Your task to perform on an android device: find photos in the google photos app Image 0: 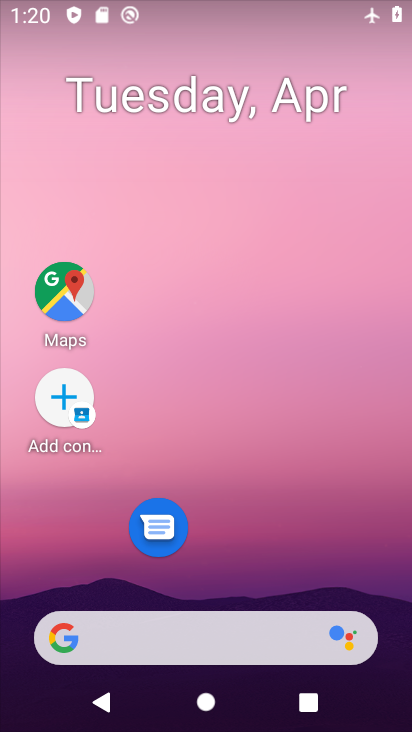
Step 0: drag from (242, 582) to (236, 66)
Your task to perform on an android device: find photos in the google photos app Image 1: 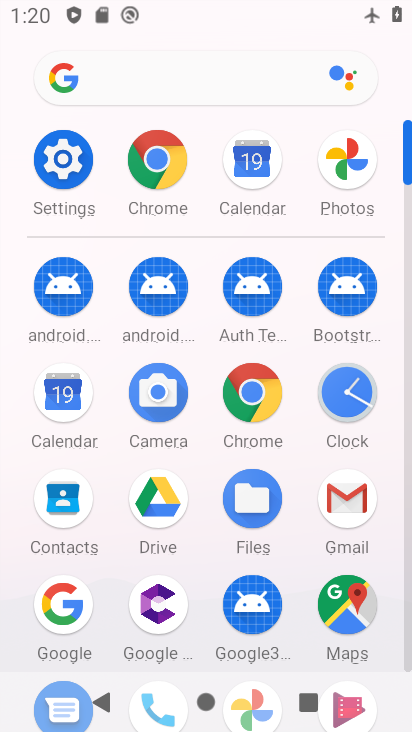
Step 1: click (347, 159)
Your task to perform on an android device: find photos in the google photos app Image 2: 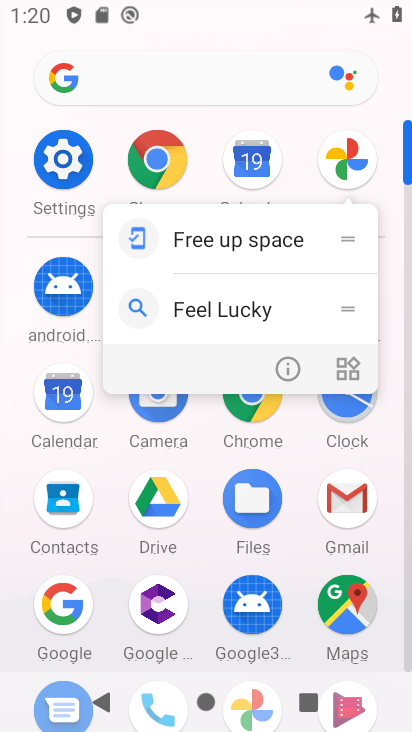
Step 2: click (347, 159)
Your task to perform on an android device: find photos in the google photos app Image 3: 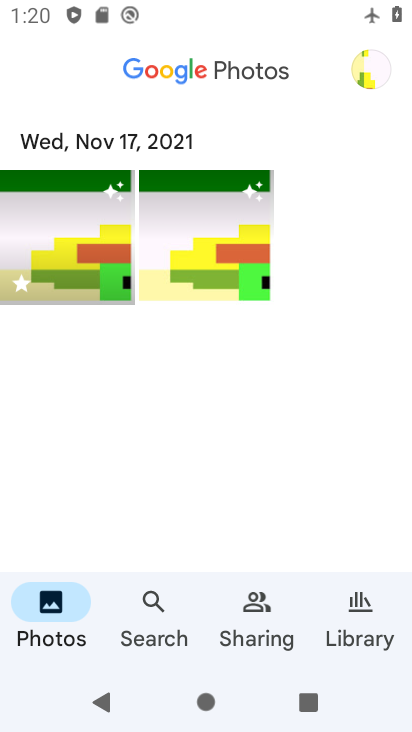
Step 3: click (151, 599)
Your task to perform on an android device: find photos in the google photos app Image 4: 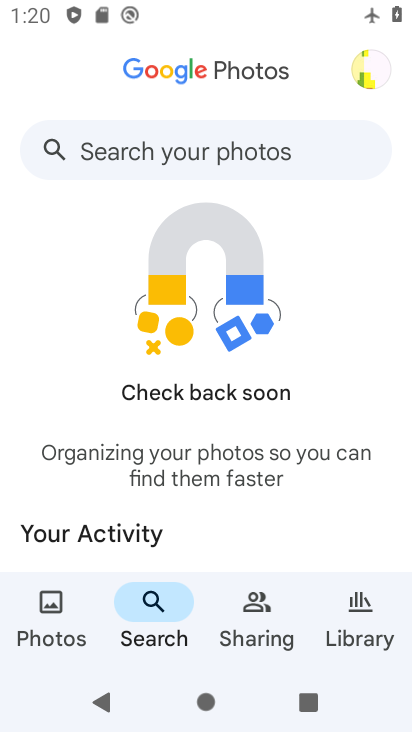
Step 4: drag from (191, 533) to (208, 311)
Your task to perform on an android device: find photos in the google photos app Image 5: 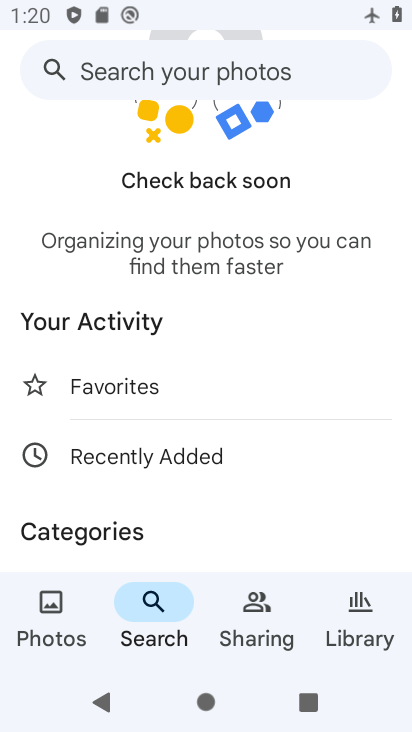
Step 5: click (146, 385)
Your task to perform on an android device: find photos in the google photos app Image 6: 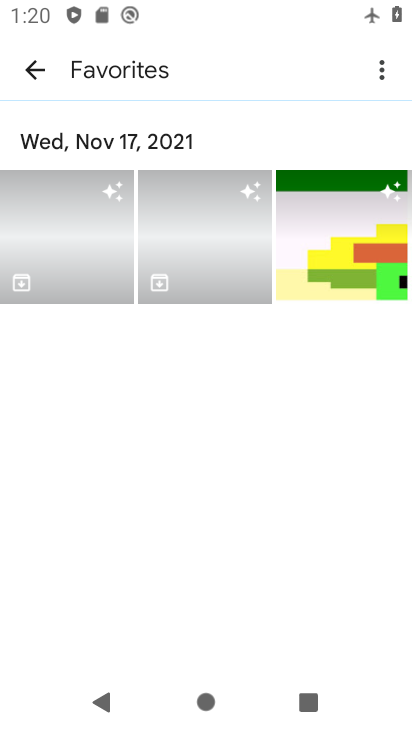
Step 6: click (331, 231)
Your task to perform on an android device: find photos in the google photos app Image 7: 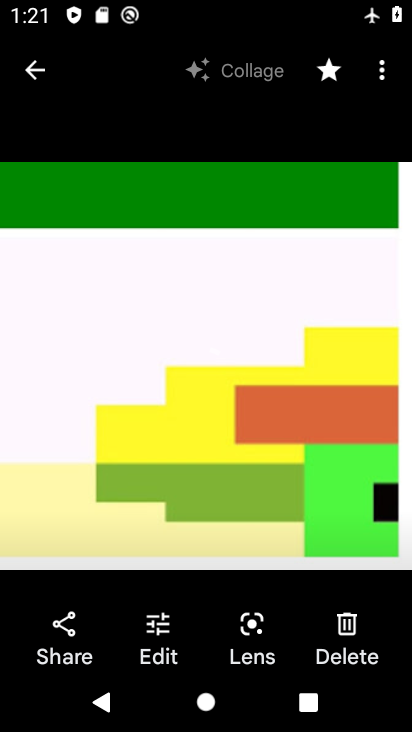
Step 7: task complete